Your task to perform on an android device: See recent photos Image 0: 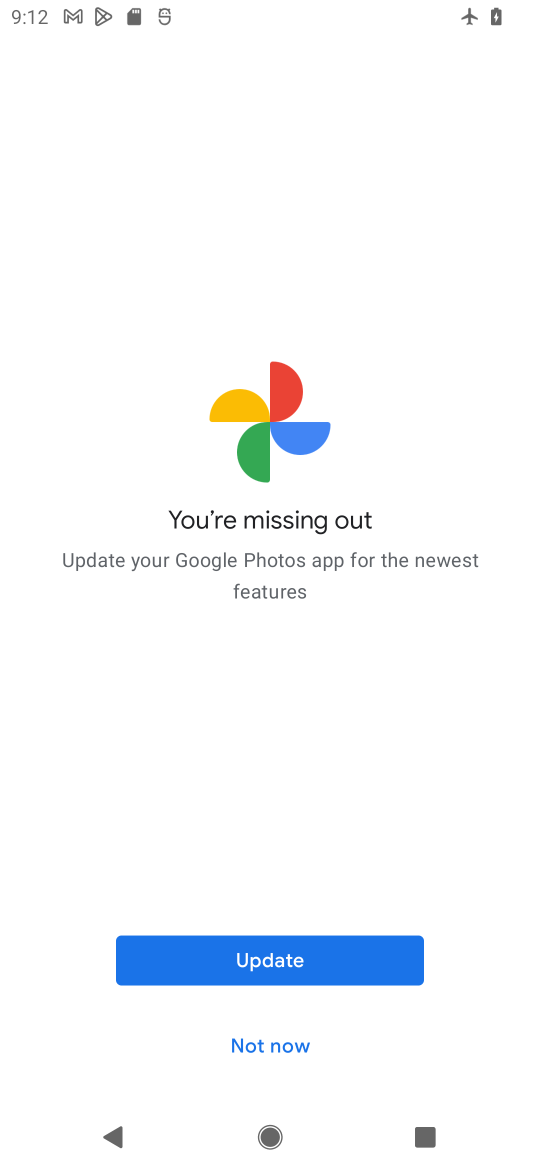
Step 0: press home button
Your task to perform on an android device: See recent photos Image 1: 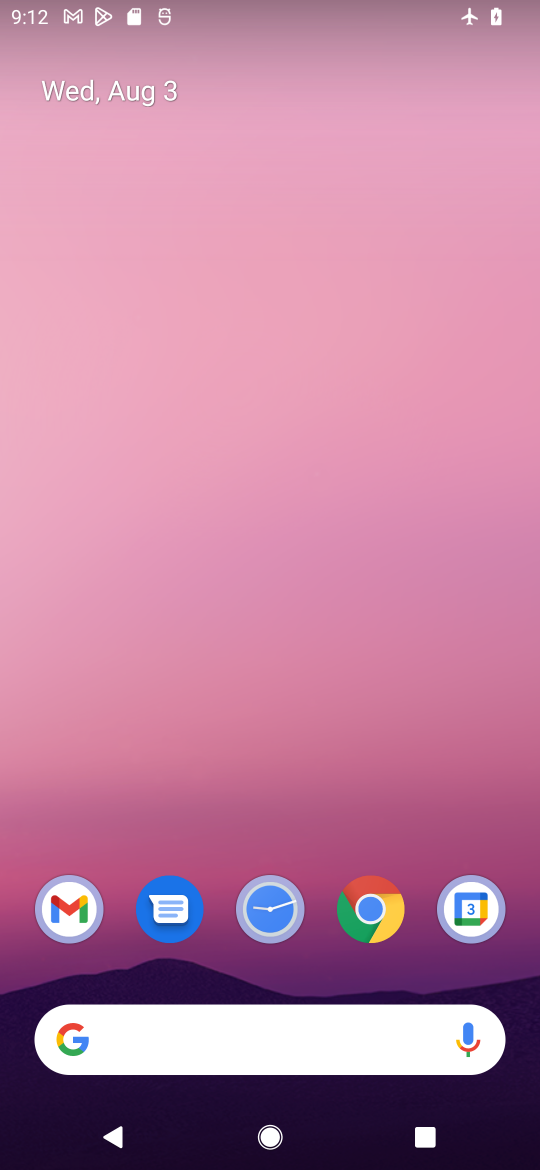
Step 1: drag from (306, 833) to (303, 324)
Your task to perform on an android device: See recent photos Image 2: 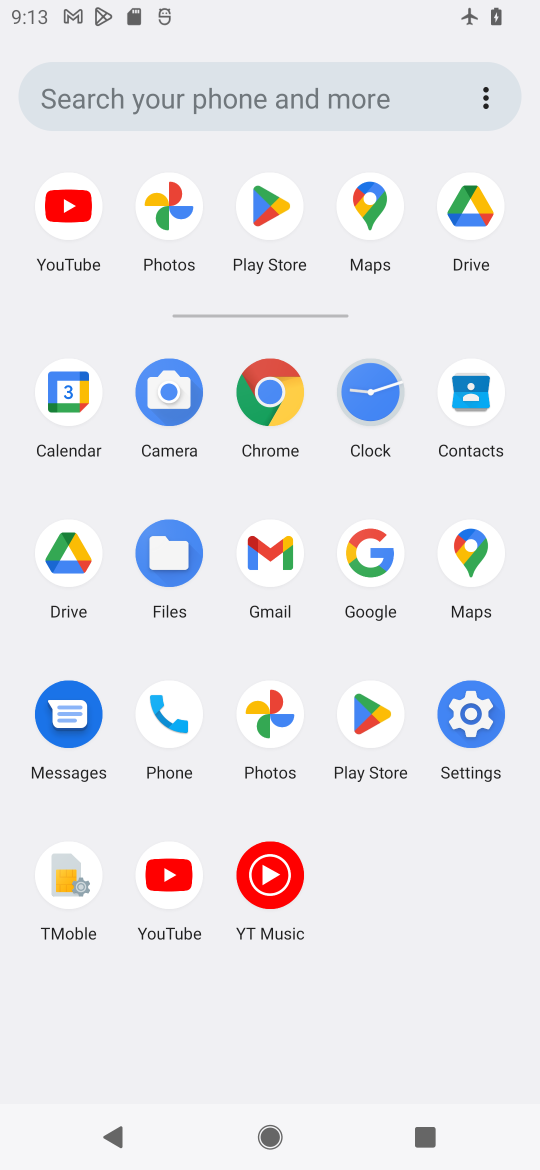
Step 2: click (268, 719)
Your task to perform on an android device: See recent photos Image 3: 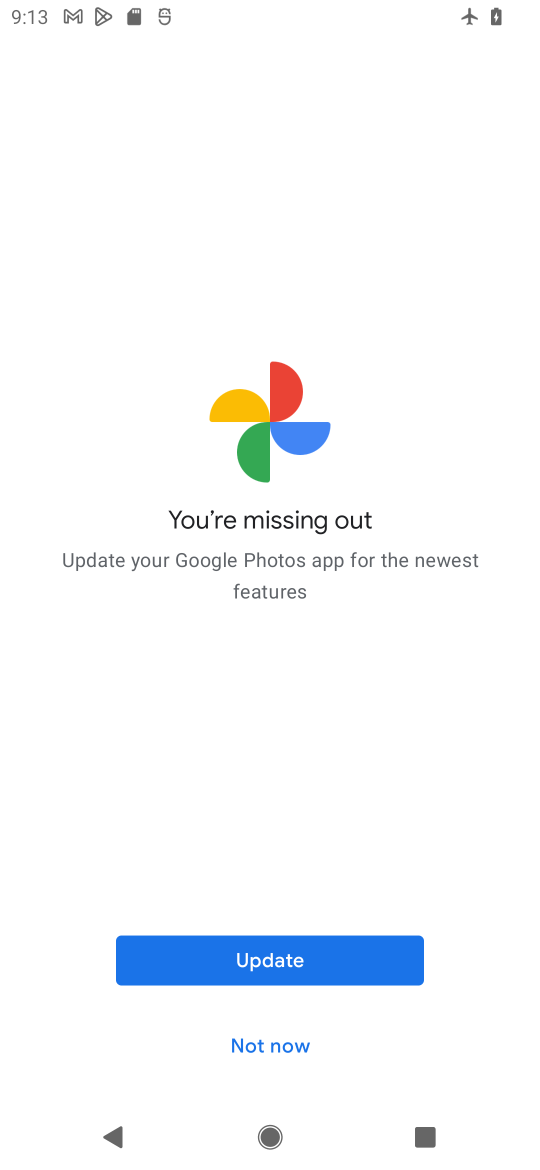
Step 3: click (259, 1054)
Your task to perform on an android device: See recent photos Image 4: 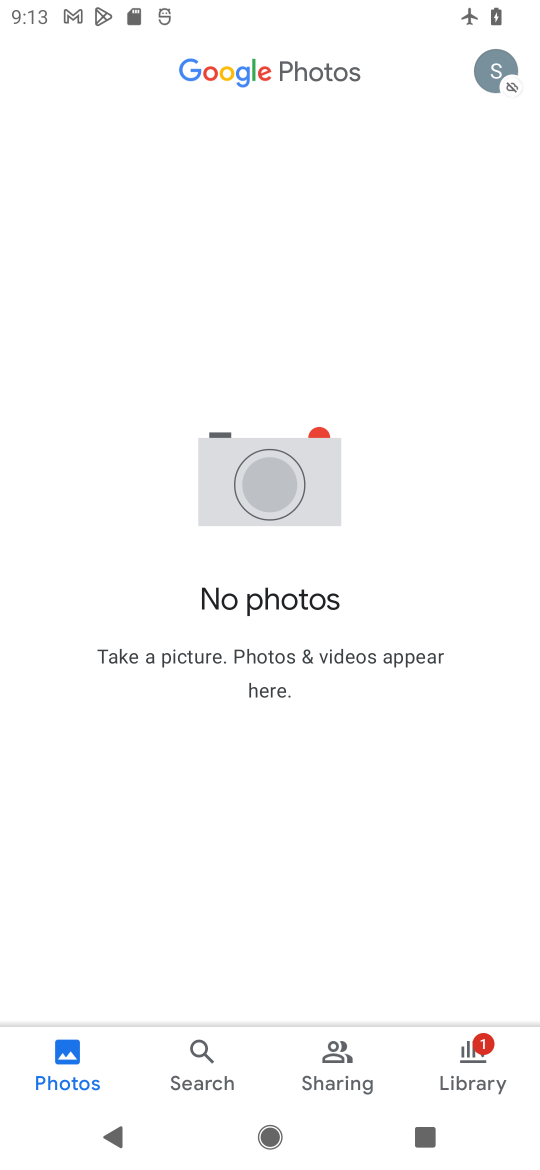
Step 4: task complete